Your task to perform on an android device: turn vacation reply on in the gmail app Image 0: 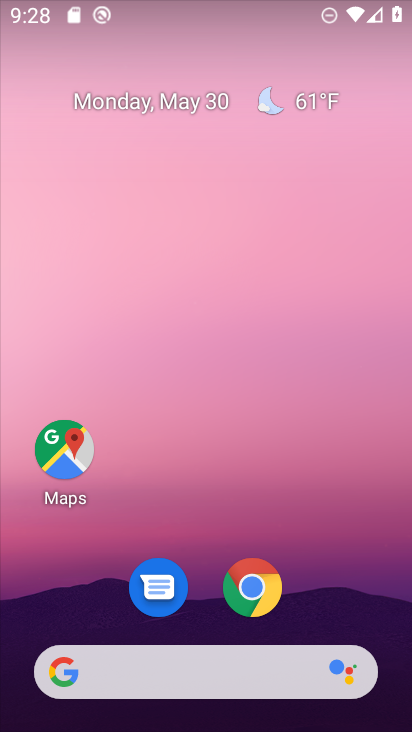
Step 0: drag from (230, 636) to (393, 312)
Your task to perform on an android device: turn vacation reply on in the gmail app Image 1: 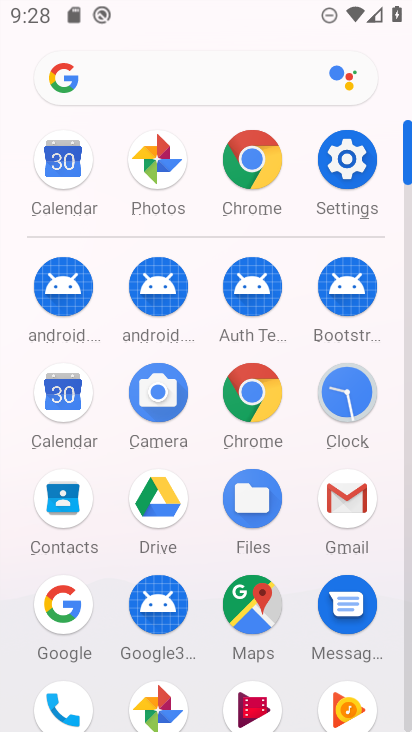
Step 1: click (349, 507)
Your task to perform on an android device: turn vacation reply on in the gmail app Image 2: 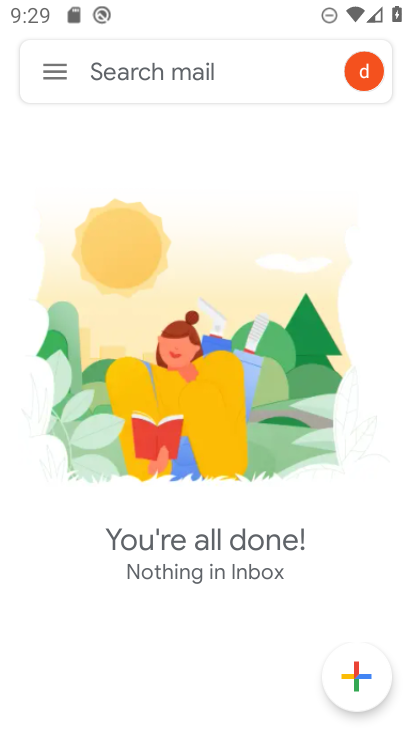
Step 2: click (49, 70)
Your task to perform on an android device: turn vacation reply on in the gmail app Image 3: 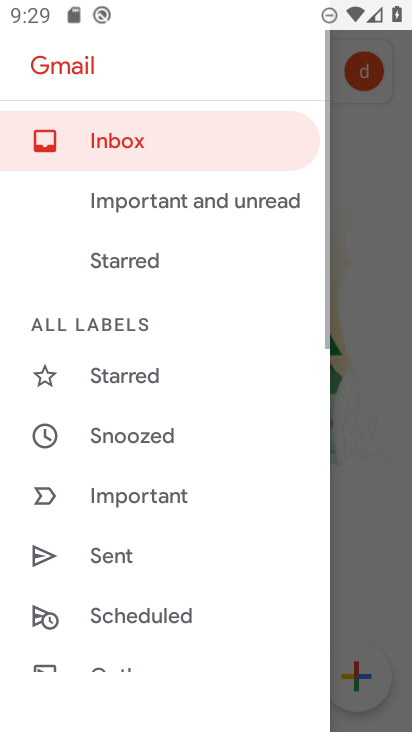
Step 3: drag from (91, 614) to (77, 61)
Your task to perform on an android device: turn vacation reply on in the gmail app Image 4: 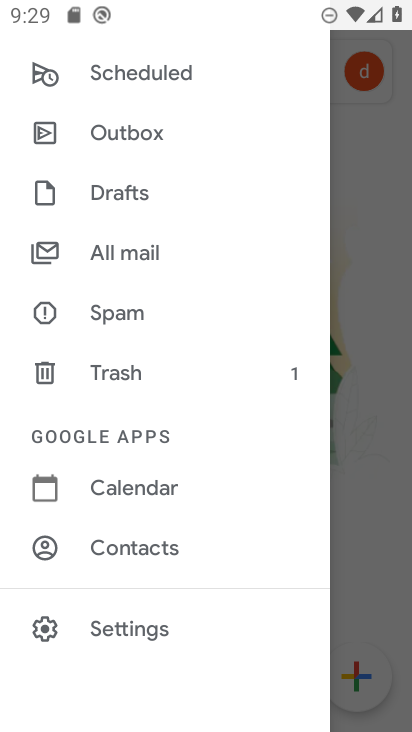
Step 4: click (133, 622)
Your task to perform on an android device: turn vacation reply on in the gmail app Image 5: 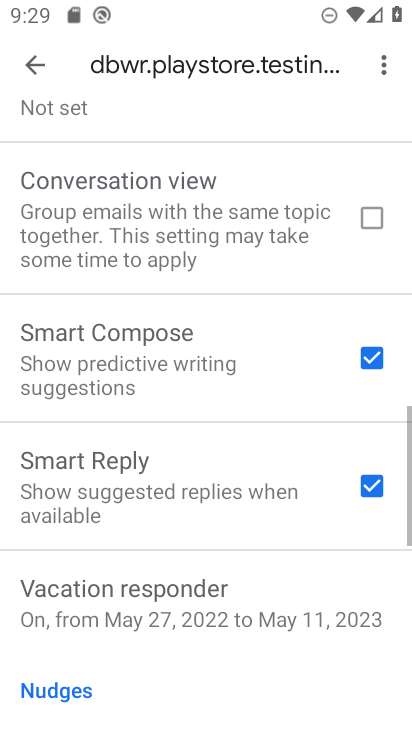
Step 5: click (142, 604)
Your task to perform on an android device: turn vacation reply on in the gmail app Image 6: 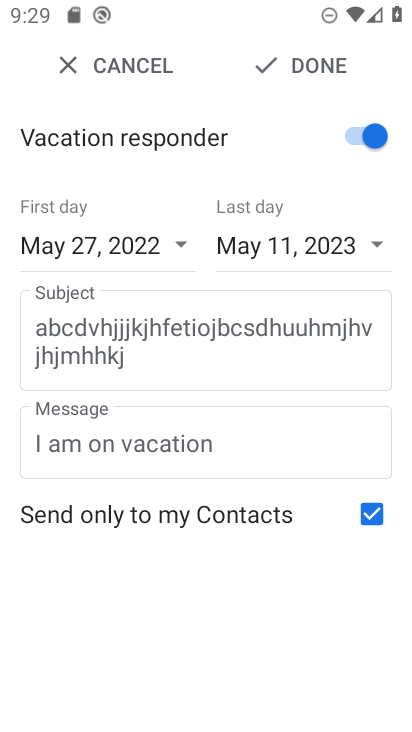
Step 6: click (297, 64)
Your task to perform on an android device: turn vacation reply on in the gmail app Image 7: 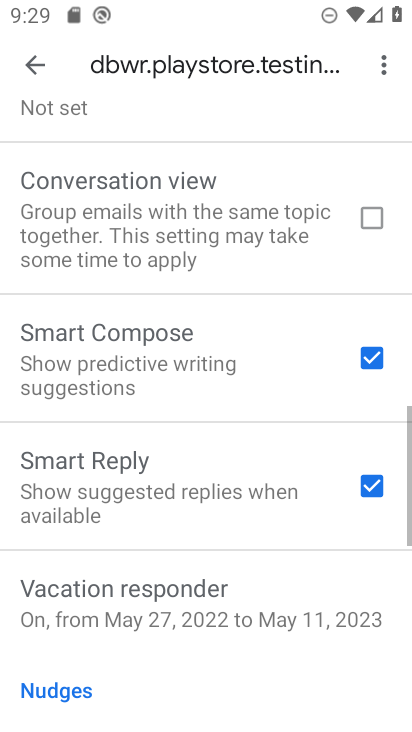
Step 7: task complete